Your task to perform on an android device: Go to sound settings Image 0: 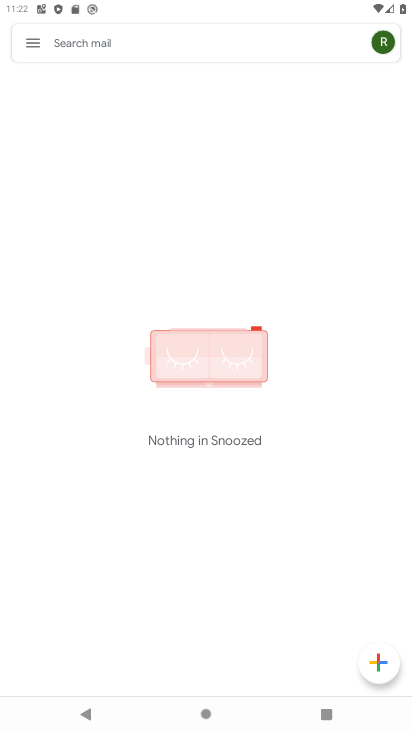
Step 0: press home button
Your task to perform on an android device: Go to sound settings Image 1: 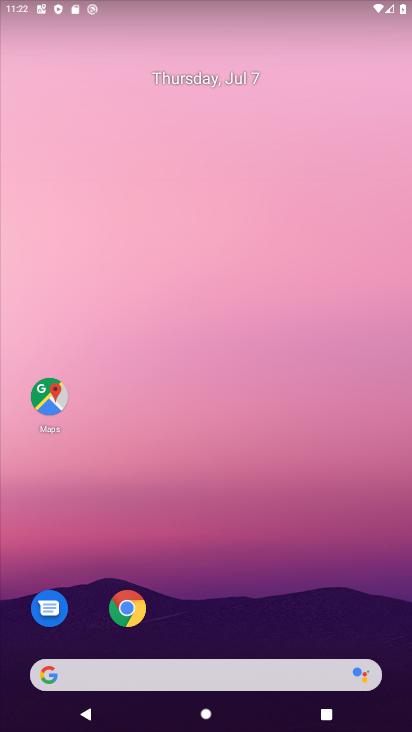
Step 1: drag from (22, 716) to (391, 142)
Your task to perform on an android device: Go to sound settings Image 2: 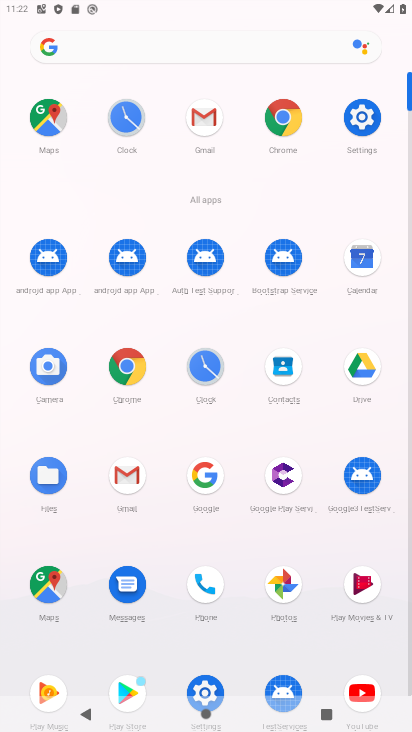
Step 2: click (336, 115)
Your task to perform on an android device: Go to sound settings Image 3: 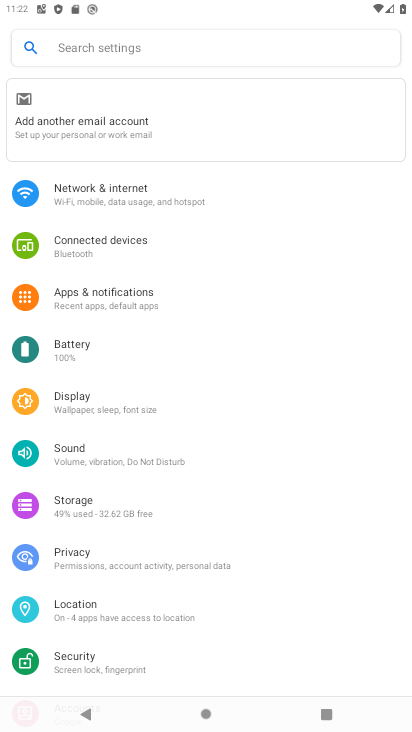
Step 3: click (119, 451)
Your task to perform on an android device: Go to sound settings Image 4: 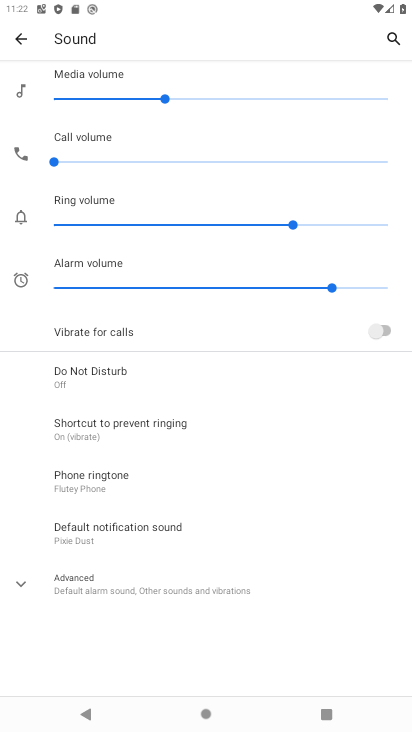
Step 4: task complete